Your task to perform on an android device: change text size in settings app Image 0: 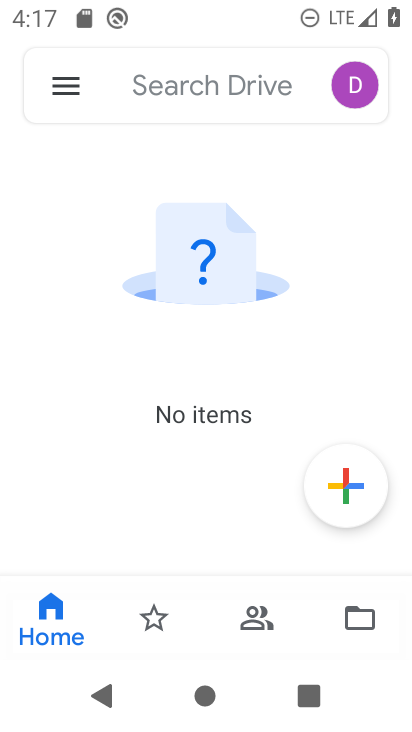
Step 0: press back button
Your task to perform on an android device: change text size in settings app Image 1: 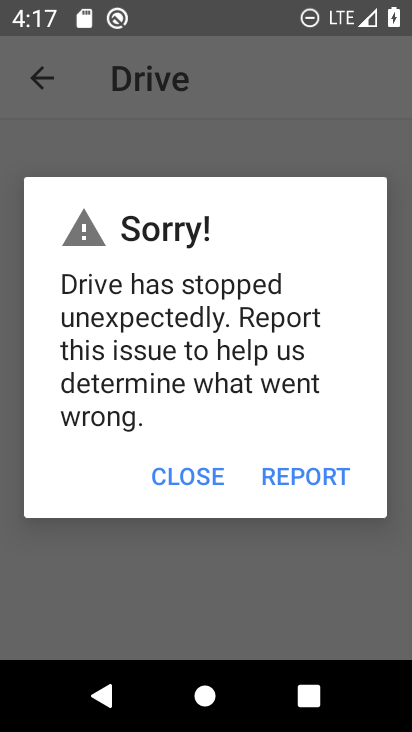
Step 1: press home button
Your task to perform on an android device: change text size in settings app Image 2: 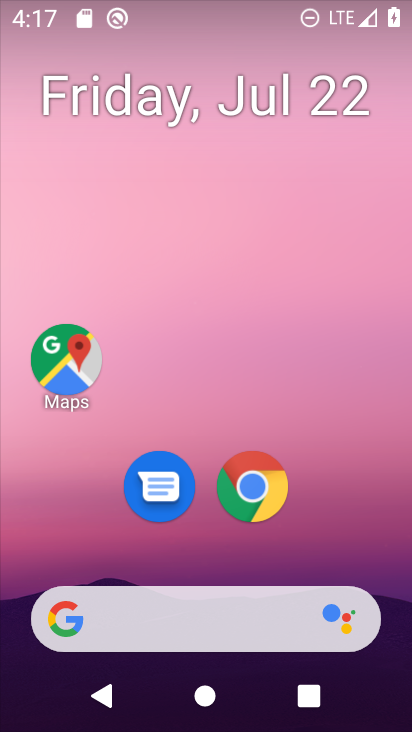
Step 2: drag from (107, 556) to (260, 0)
Your task to perform on an android device: change text size in settings app Image 3: 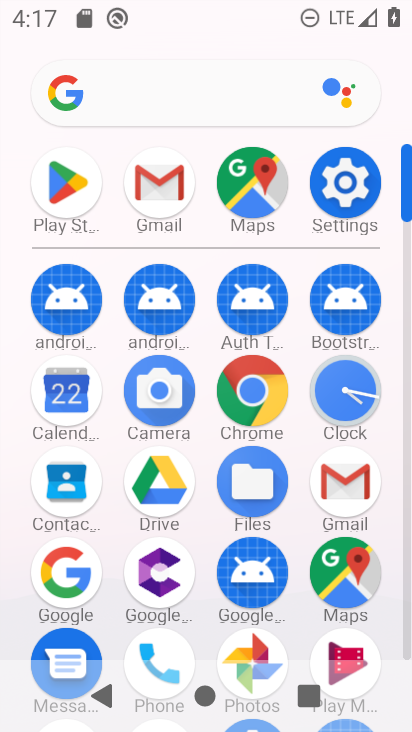
Step 3: click (338, 175)
Your task to perform on an android device: change text size in settings app Image 4: 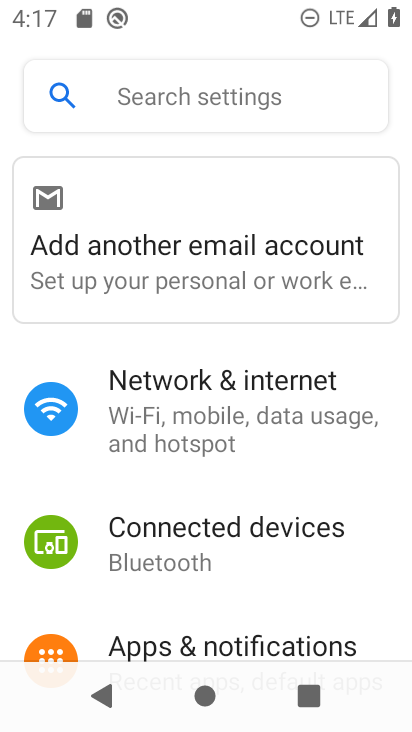
Step 4: click (156, 97)
Your task to perform on an android device: change text size in settings app Image 5: 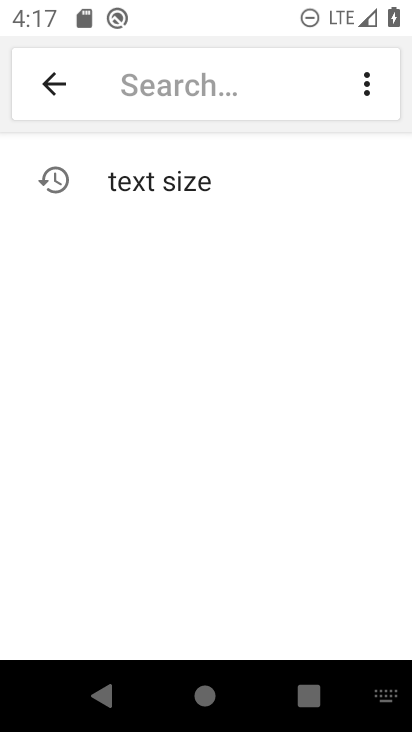
Step 5: type "text size"
Your task to perform on an android device: change text size in settings app Image 6: 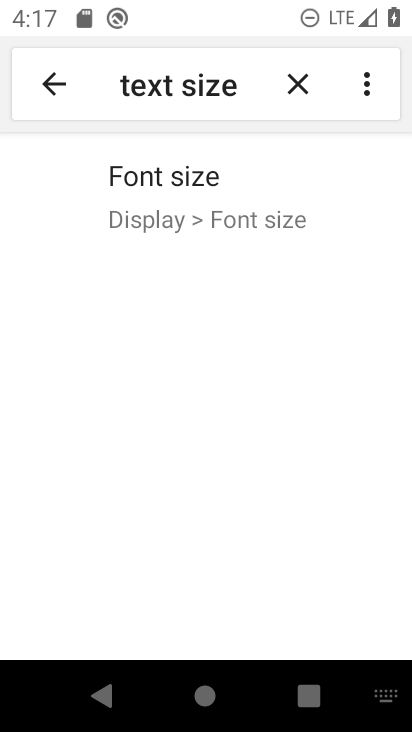
Step 6: click (191, 187)
Your task to perform on an android device: change text size in settings app Image 7: 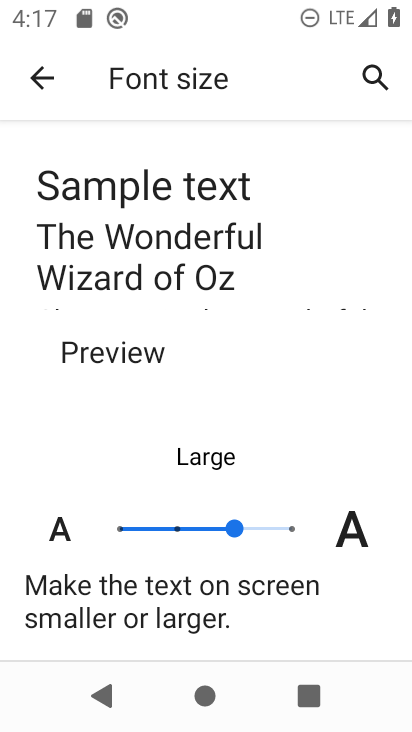
Step 7: task complete